Your task to perform on an android device: Open the Play Movies app and select the watchlist tab. Image 0: 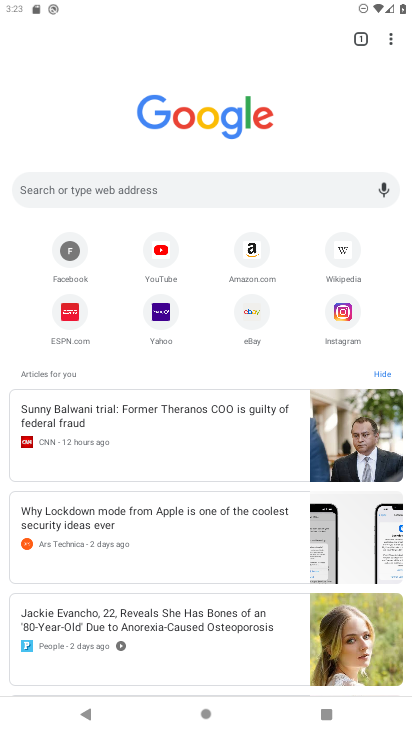
Step 0: press home button
Your task to perform on an android device: Open the Play Movies app and select the watchlist tab. Image 1: 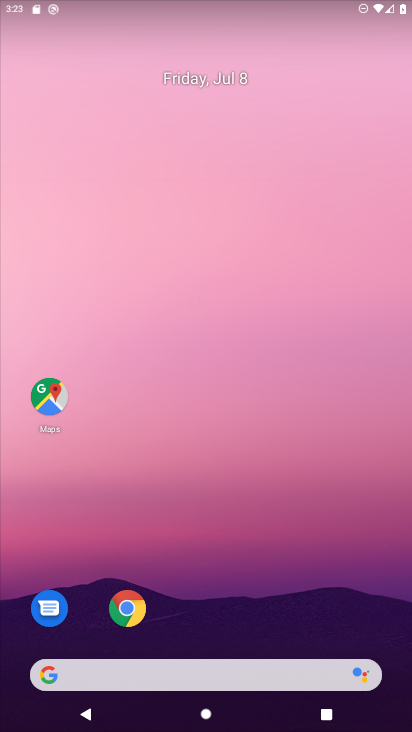
Step 1: drag from (298, 618) to (266, 46)
Your task to perform on an android device: Open the Play Movies app and select the watchlist tab. Image 2: 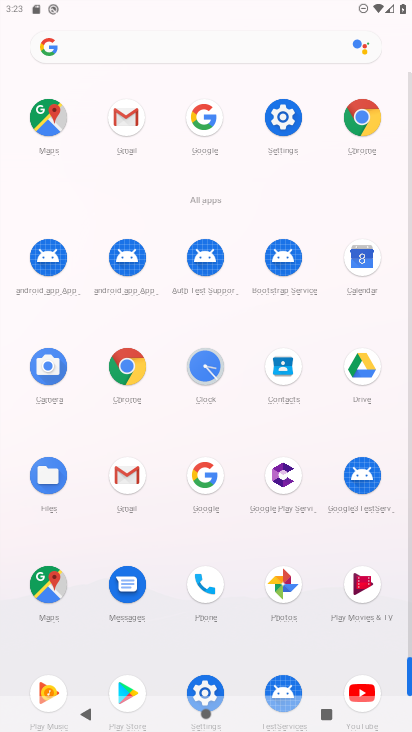
Step 2: click (363, 583)
Your task to perform on an android device: Open the Play Movies app and select the watchlist tab. Image 3: 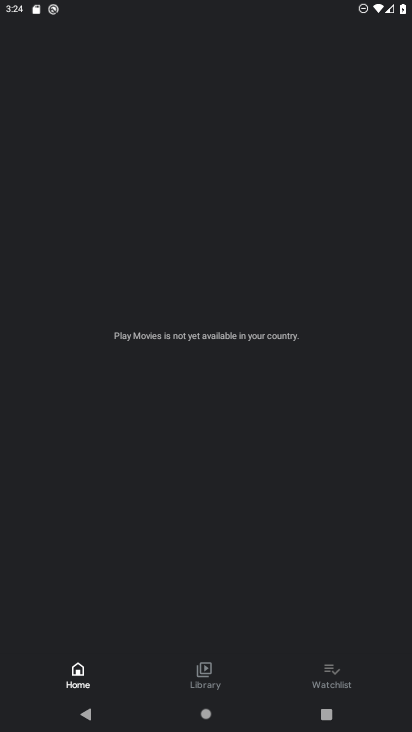
Step 3: click (342, 665)
Your task to perform on an android device: Open the Play Movies app and select the watchlist tab. Image 4: 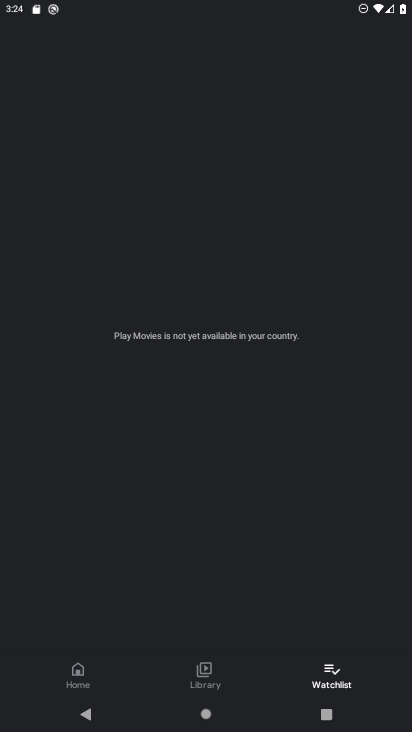
Step 4: task complete